Your task to perform on an android device: Open calendar and show me the fourth week of next month Image 0: 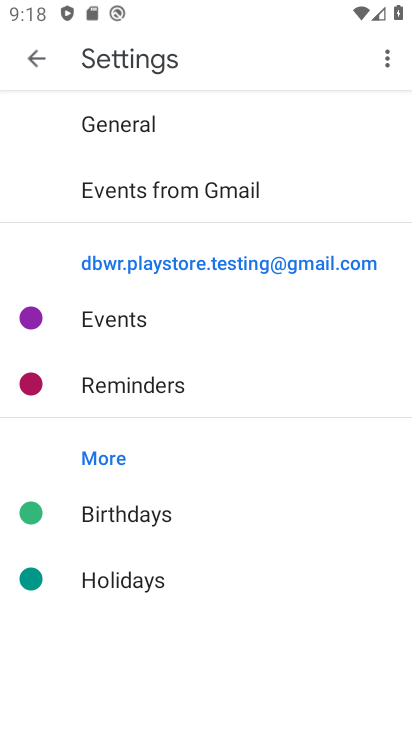
Step 0: press back button
Your task to perform on an android device: Open calendar and show me the fourth week of next month Image 1: 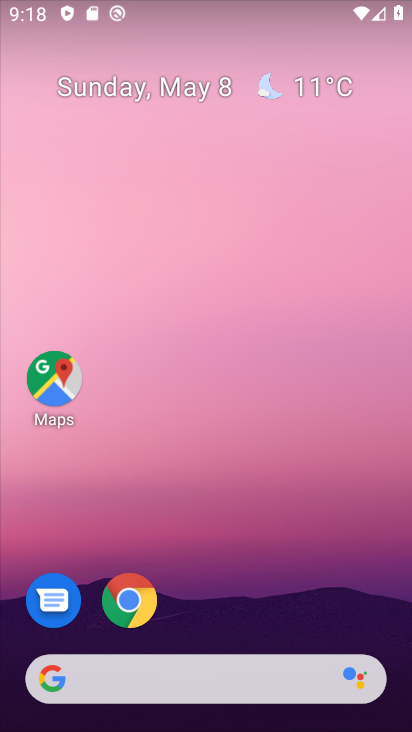
Step 1: drag from (271, 543) to (218, 11)
Your task to perform on an android device: Open calendar and show me the fourth week of next month Image 2: 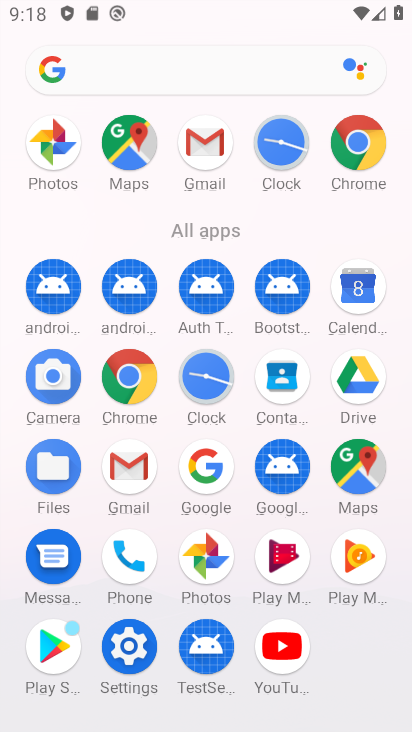
Step 2: click (355, 279)
Your task to perform on an android device: Open calendar and show me the fourth week of next month Image 3: 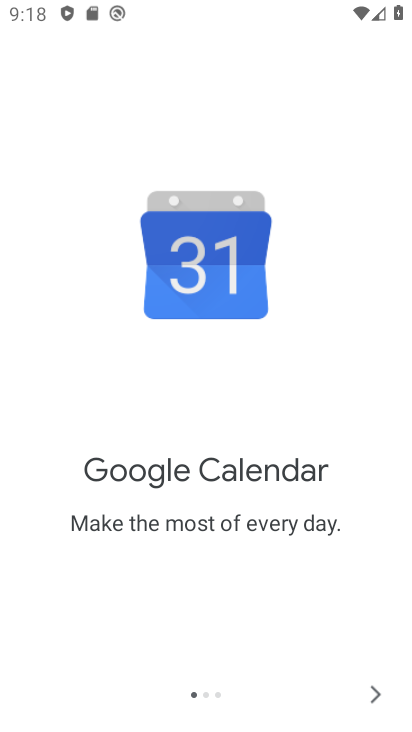
Step 3: click (376, 700)
Your task to perform on an android device: Open calendar and show me the fourth week of next month Image 4: 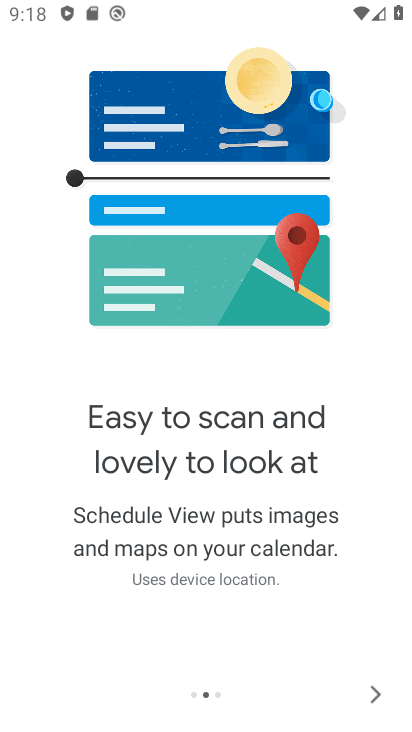
Step 4: click (372, 693)
Your task to perform on an android device: Open calendar and show me the fourth week of next month Image 5: 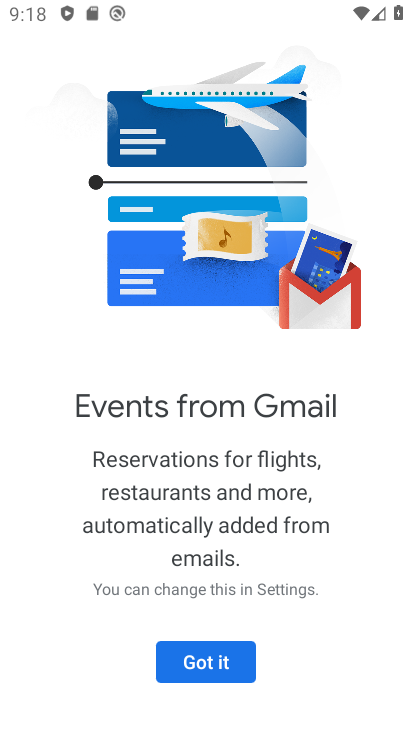
Step 5: click (231, 665)
Your task to perform on an android device: Open calendar and show me the fourth week of next month Image 6: 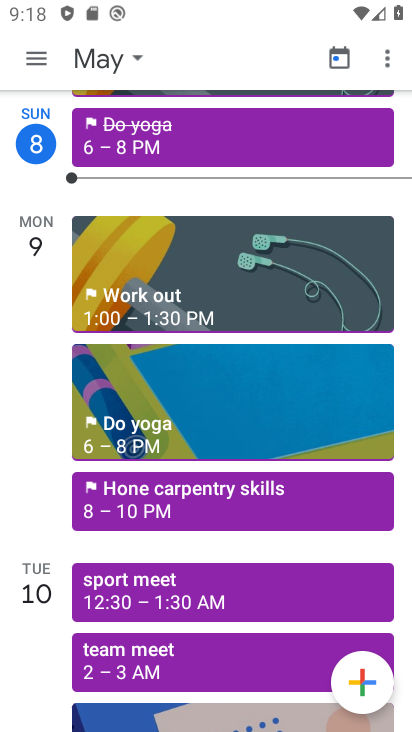
Step 6: click (132, 54)
Your task to perform on an android device: Open calendar and show me the fourth week of next month Image 7: 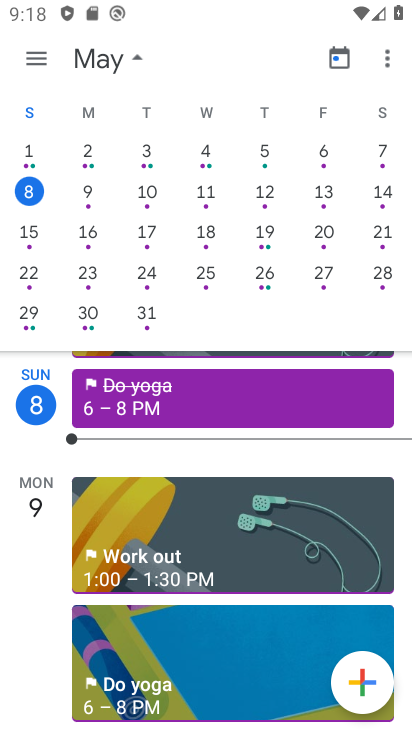
Step 7: drag from (317, 234) to (23, 229)
Your task to perform on an android device: Open calendar and show me the fourth week of next month Image 8: 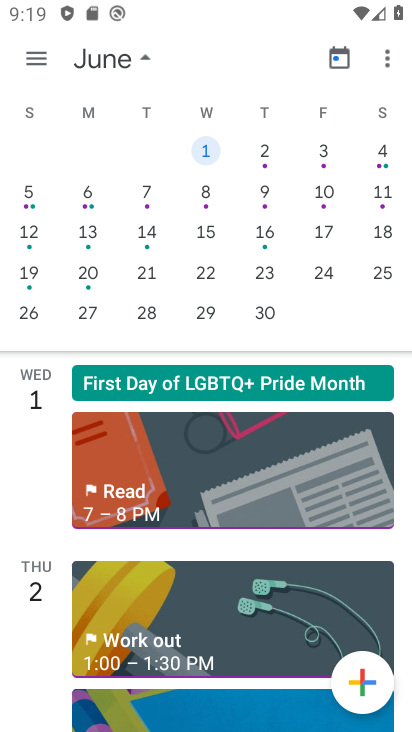
Step 8: click (27, 277)
Your task to perform on an android device: Open calendar and show me the fourth week of next month Image 9: 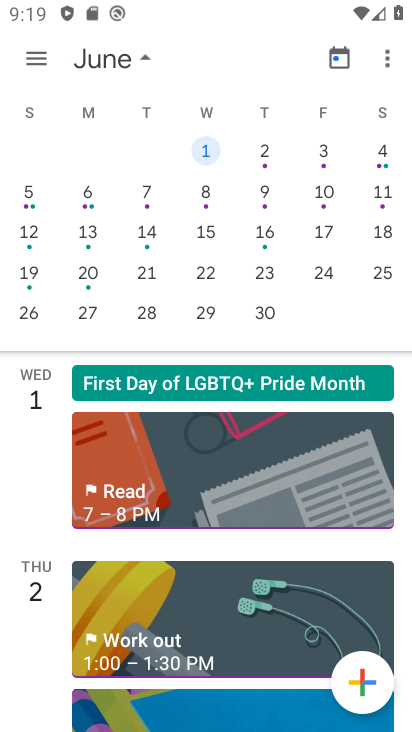
Step 9: click (27, 276)
Your task to perform on an android device: Open calendar and show me the fourth week of next month Image 10: 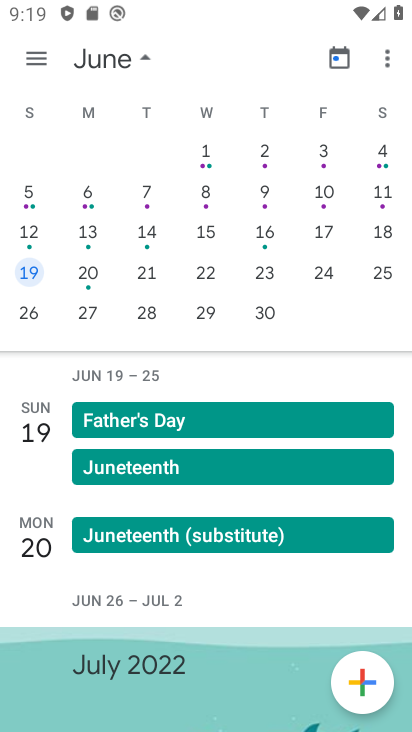
Step 10: click (32, 63)
Your task to perform on an android device: Open calendar and show me the fourth week of next month Image 11: 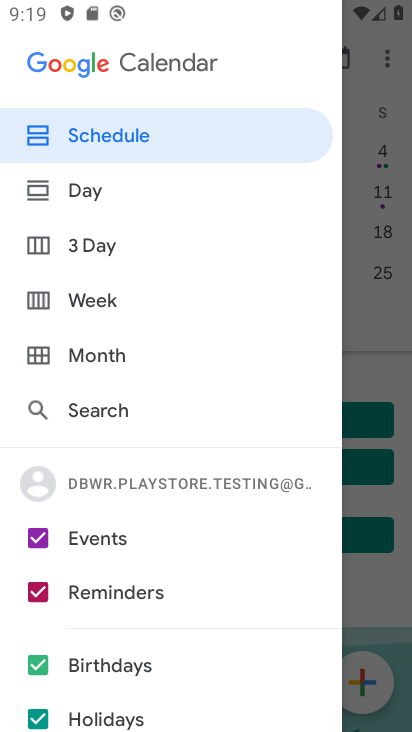
Step 11: click (104, 302)
Your task to perform on an android device: Open calendar and show me the fourth week of next month Image 12: 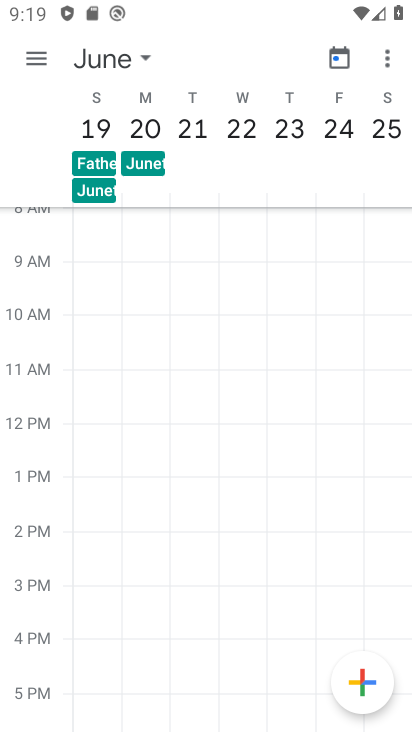
Step 12: task complete